Your task to perform on an android device: Open settings Image 0: 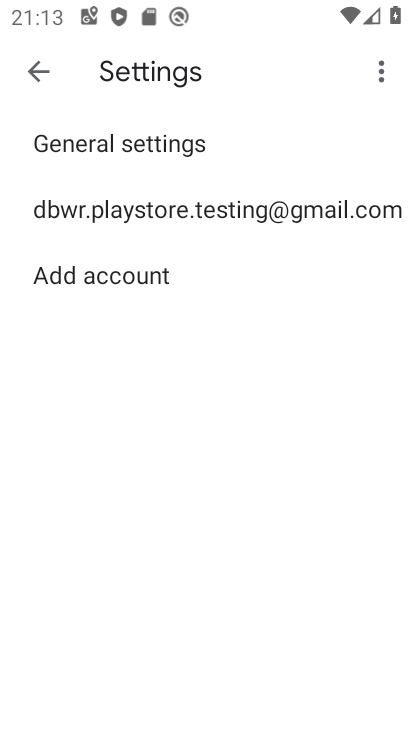
Step 0: press home button
Your task to perform on an android device: Open settings Image 1: 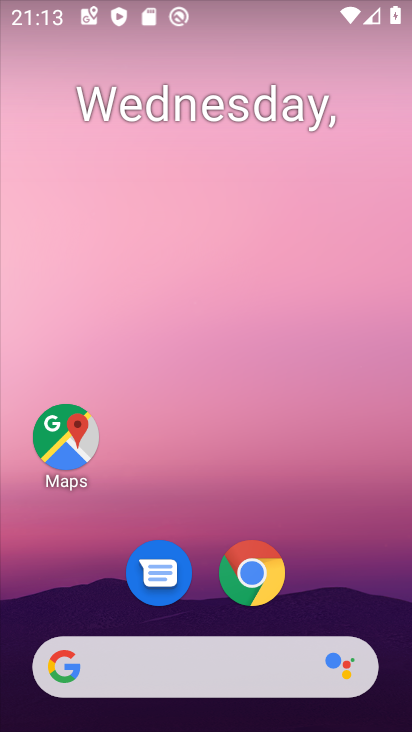
Step 1: drag from (327, 344) to (306, 111)
Your task to perform on an android device: Open settings Image 2: 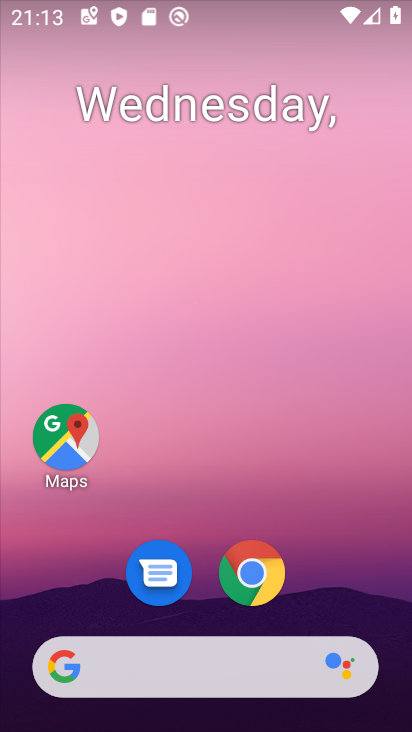
Step 2: drag from (347, 341) to (344, 271)
Your task to perform on an android device: Open settings Image 3: 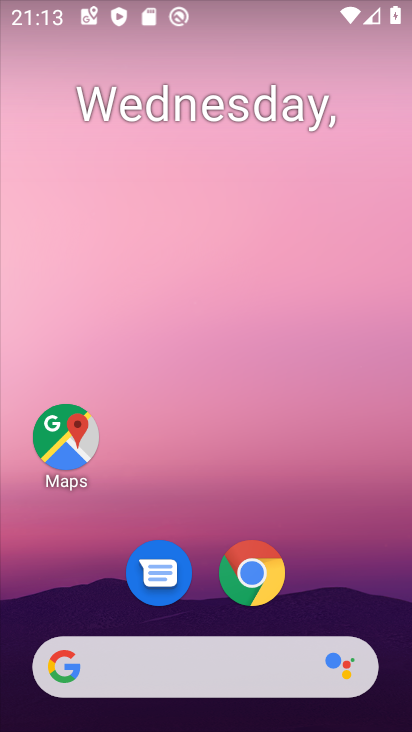
Step 3: click (273, 147)
Your task to perform on an android device: Open settings Image 4: 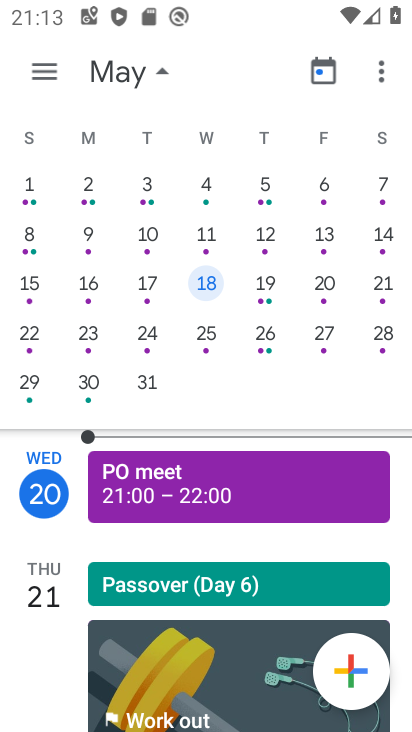
Step 4: press home button
Your task to perform on an android device: Open settings Image 5: 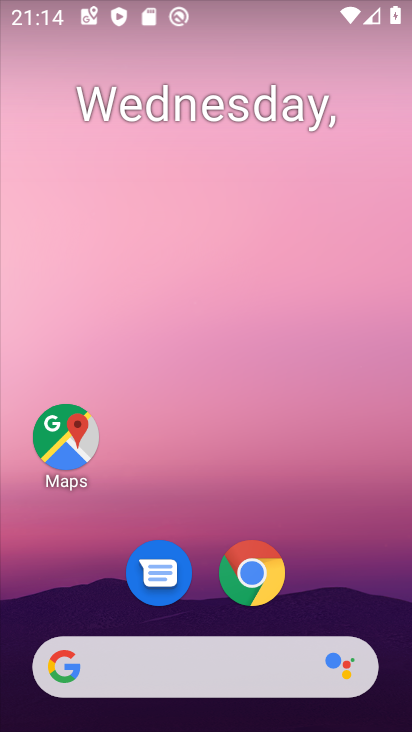
Step 5: drag from (333, 204) to (319, 148)
Your task to perform on an android device: Open settings Image 6: 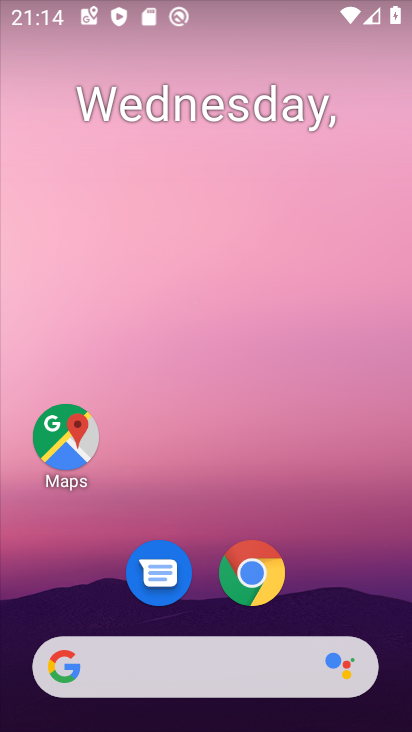
Step 6: drag from (308, 246) to (300, 176)
Your task to perform on an android device: Open settings Image 7: 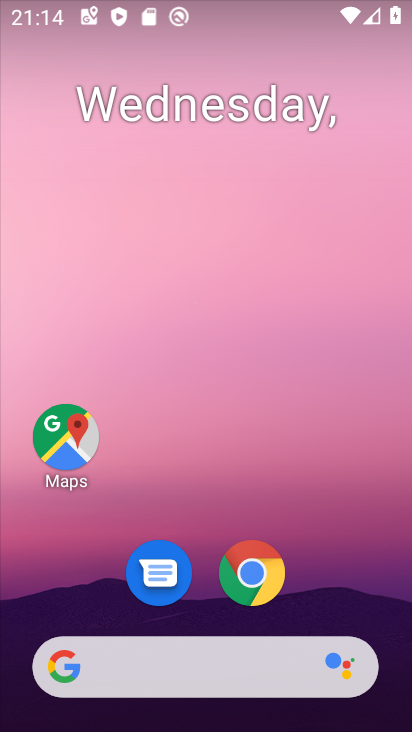
Step 7: drag from (365, 609) to (348, 98)
Your task to perform on an android device: Open settings Image 8: 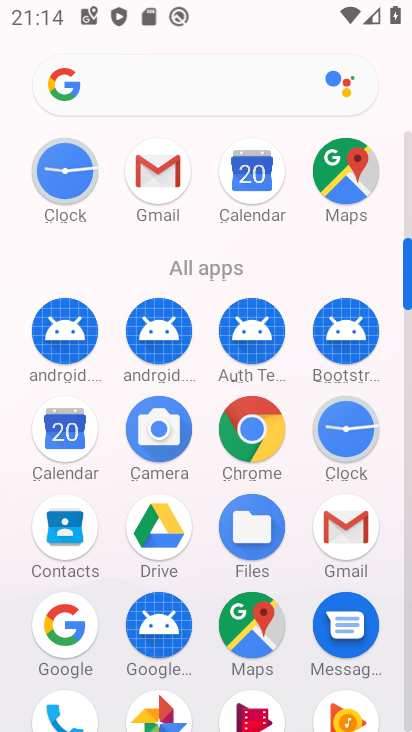
Step 8: drag from (402, 256) to (398, 150)
Your task to perform on an android device: Open settings Image 9: 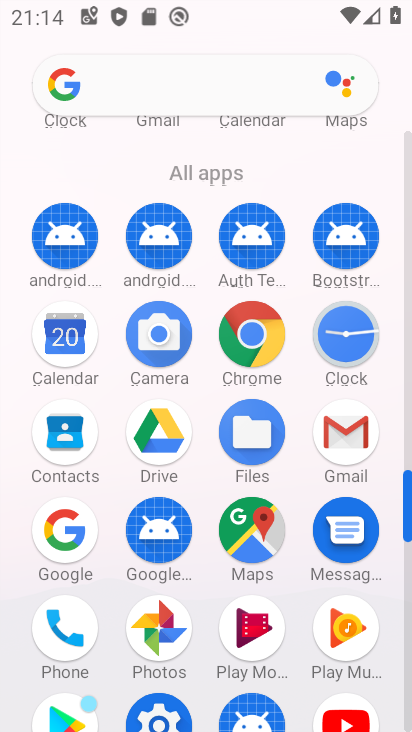
Step 9: click (145, 709)
Your task to perform on an android device: Open settings Image 10: 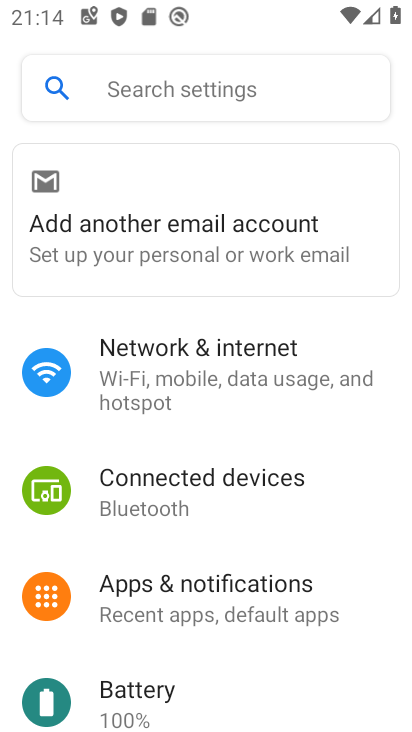
Step 10: task complete